Your task to perform on an android device: Open ESPN.com Image 0: 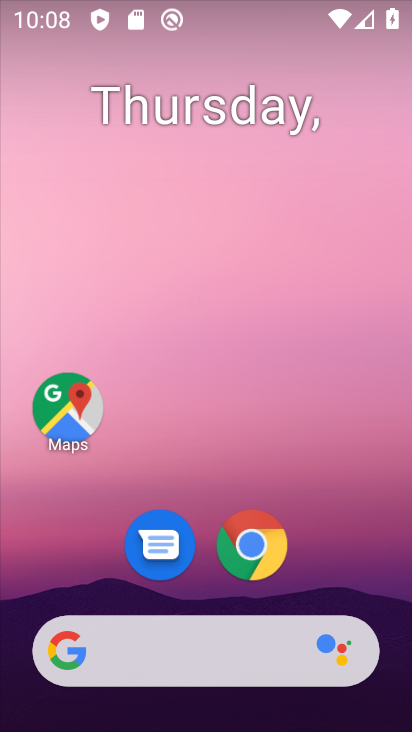
Step 0: click (251, 539)
Your task to perform on an android device: Open ESPN.com Image 1: 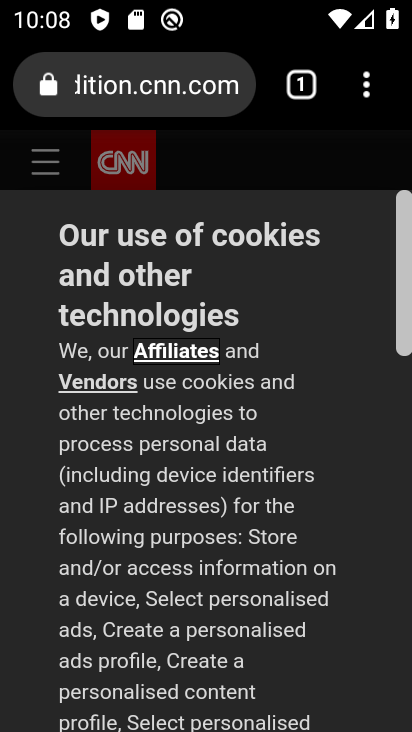
Step 1: click (226, 88)
Your task to perform on an android device: Open ESPN.com Image 2: 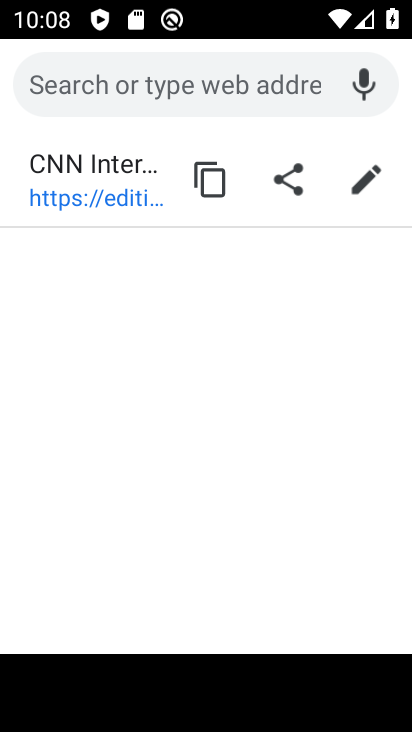
Step 2: type "ESPN.com"
Your task to perform on an android device: Open ESPN.com Image 3: 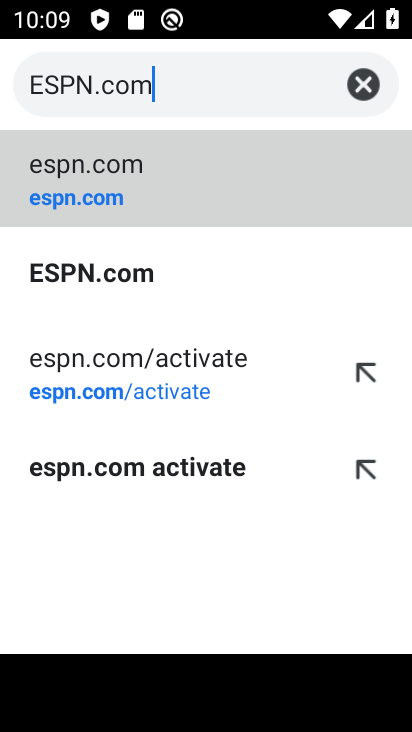
Step 3: click (97, 277)
Your task to perform on an android device: Open ESPN.com Image 4: 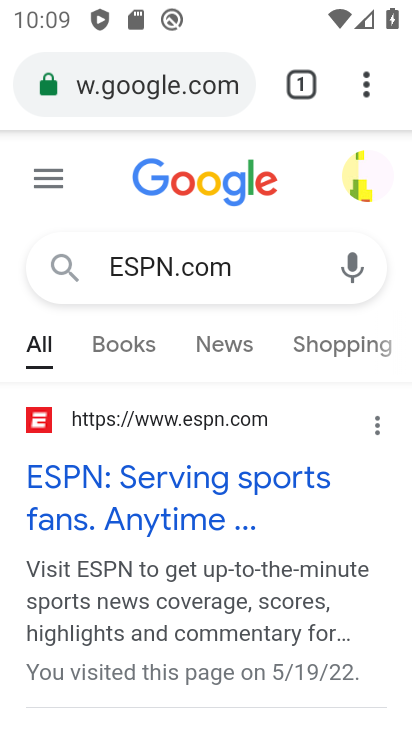
Step 4: click (96, 491)
Your task to perform on an android device: Open ESPN.com Image 5: 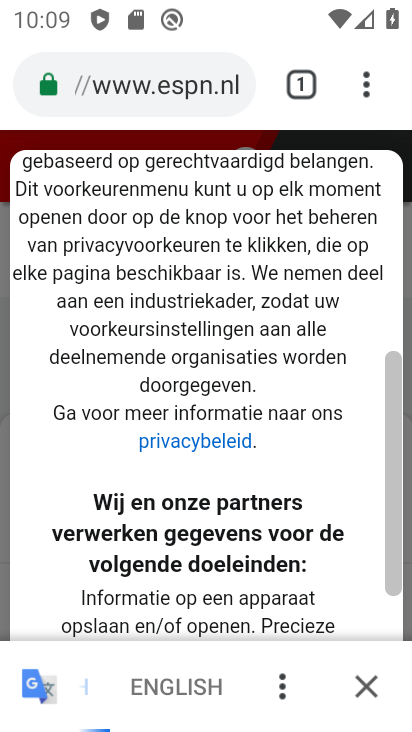
Step 5: task complete